Your task to perform on an android device: check android version Image 0: 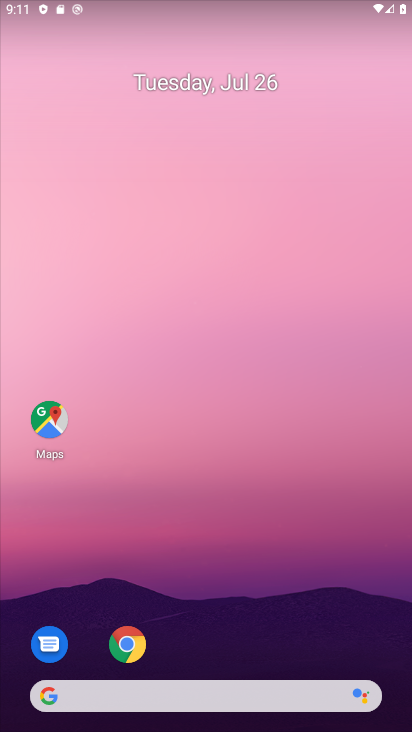
Step 0: drag from (192, 657) to (220, 217)
Your task to perform on an android device: check android version Image 1: 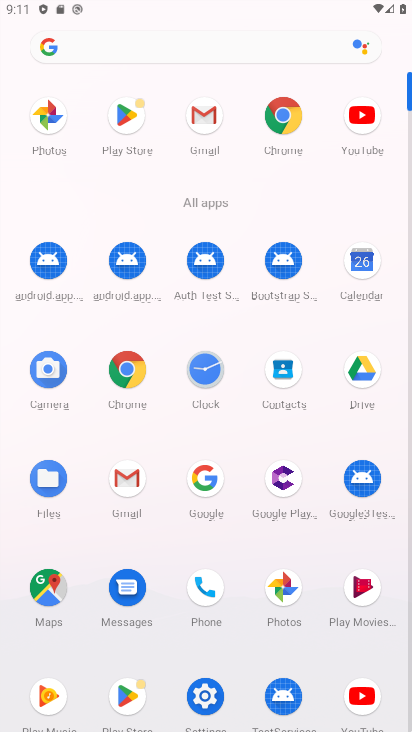
Step 1: click (202, 692)
Your task to perform on an android device: check android version Image 2: 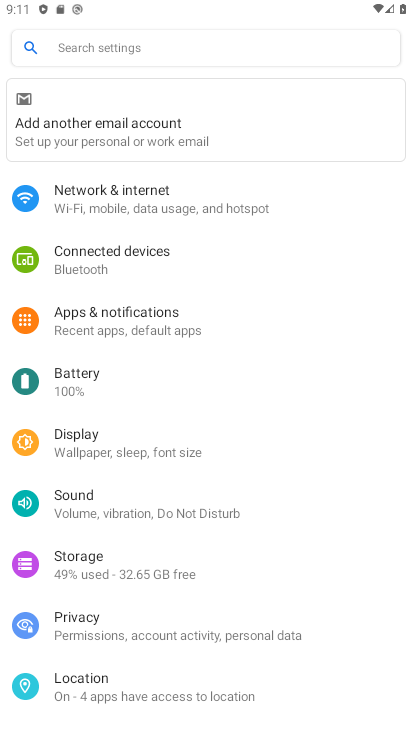
Step 2: drag from (158, 594) to (193, 6)
Your task to perform on an android device: check android version Image 3: 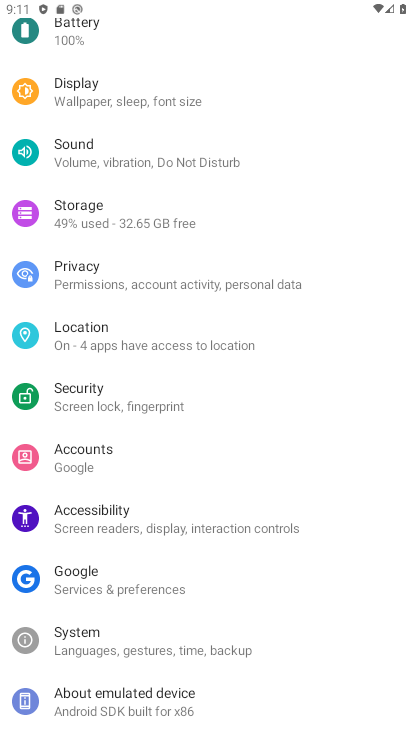
Step 3: click (118, 701)
Your task to perform on an android device: check android version Image 4: 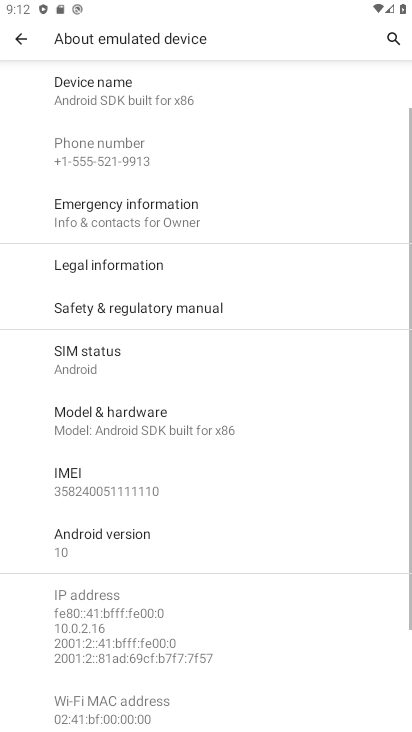
Step 4: click (109, 535)
Your task to perform on an android device: check android version Image 5: 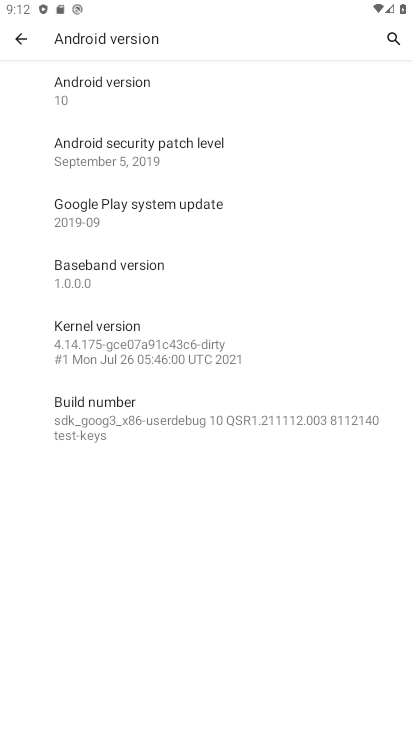
Step 5: task complete